Your task to perform on an android device: star an email in the gmail app Image 0: 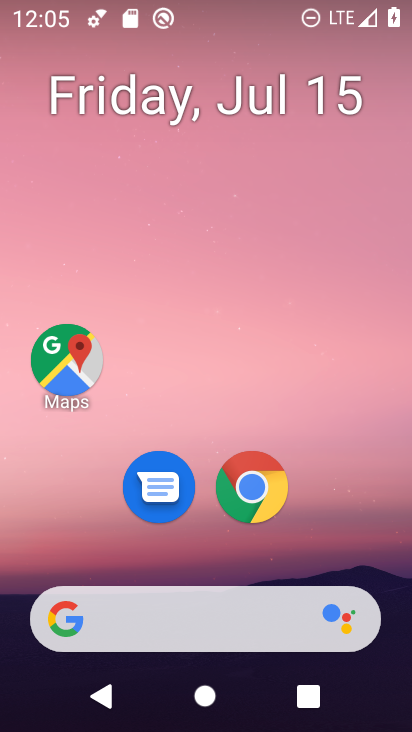
Step 0: press home button
Your task to perform on an android device: star an email in the gmail app Image 1: 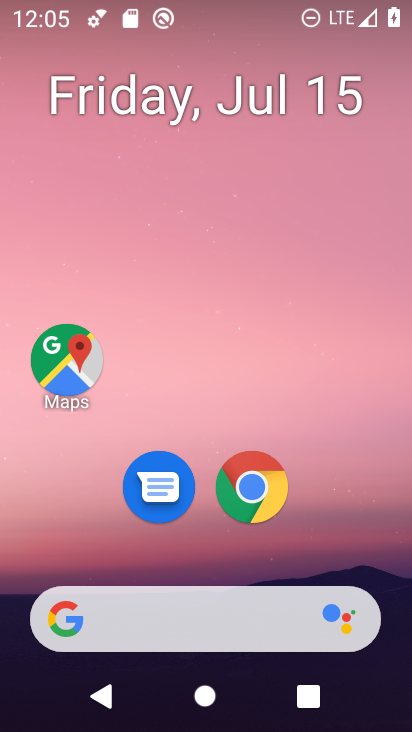
Step 1: drag from (239, 625) to (239, 184)
Your task to perform on an android device: star an email in the gmail app Image 2: 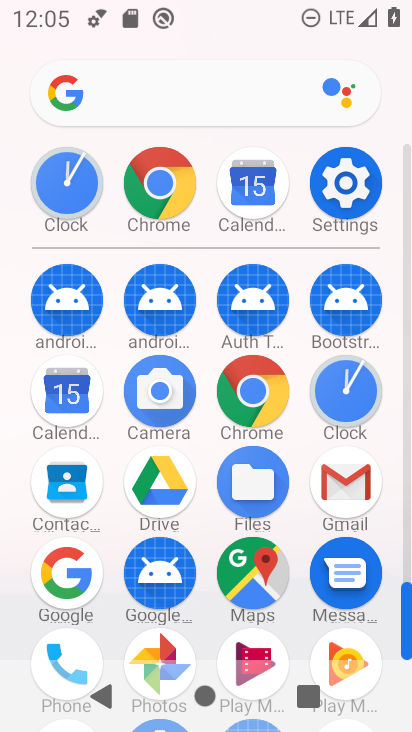
Step 2: click (341, 467)
Your task to perform on an android device: star an email in the gmail app Image 3: 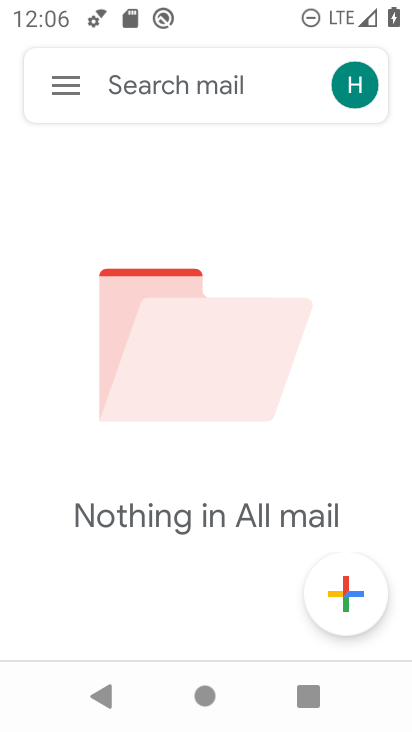
Step 3: task complete